Your task to perform on an android device: turn pop-ups on in chrome Image 0: 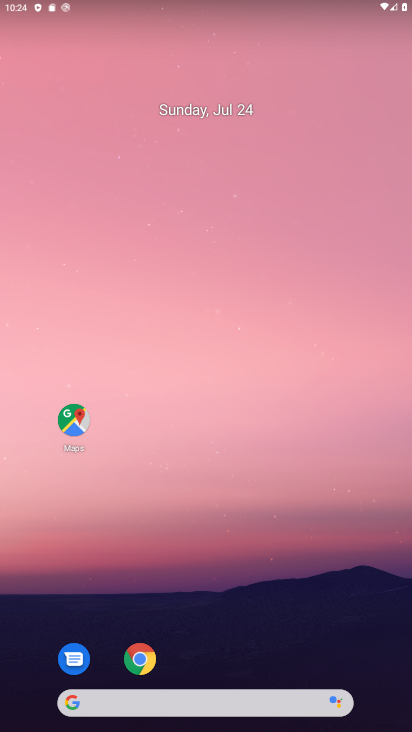
Step 0: drag from (190, 372) to (173, 45)
Your task to perform on an android device: turn pop-ups on in chrome Image 1: 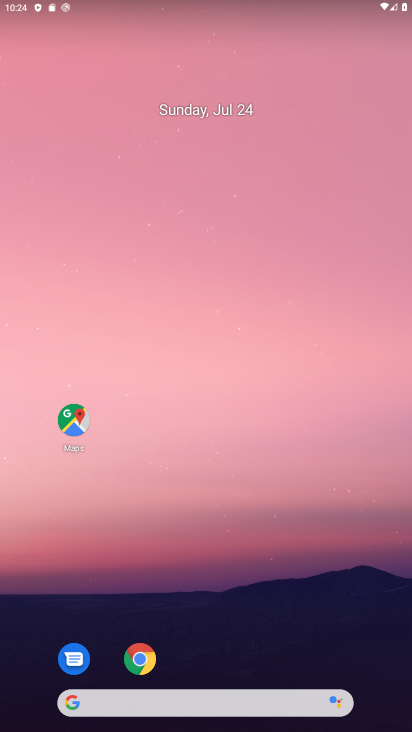
Step 1: drag from (289, 660) to (252, 13)
Your task to perform on an android device: turn pop-ups on in chrome Image 2: 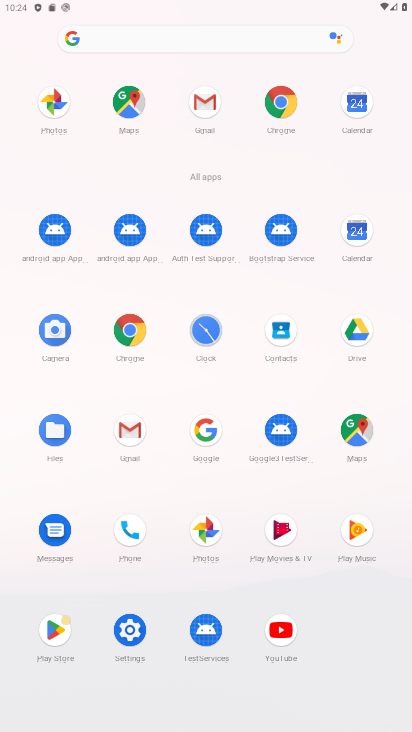
Step 2: click (277, 110)
Your task to perform on an android device: turn pop-ups on in chrome Image 3: 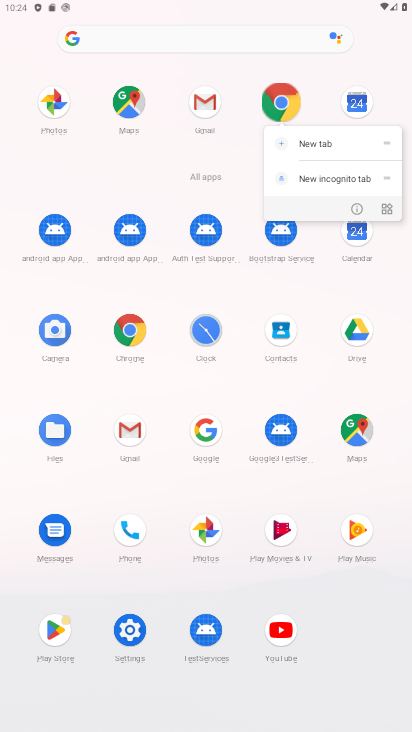
Step 3: click (277, 109)
Your task to perform on an android device: turn pop-ups on in chrome Image 4: 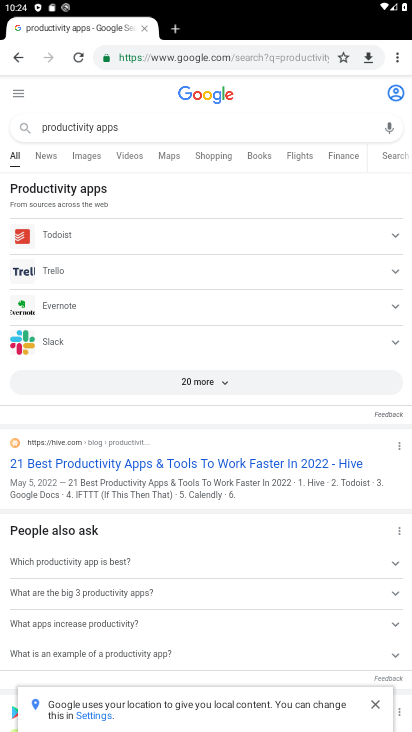
Step 4: drag from (394, 60) to (270, 350)
Your task to perform on an android device: turn pop-ups on in chrome Image 5: 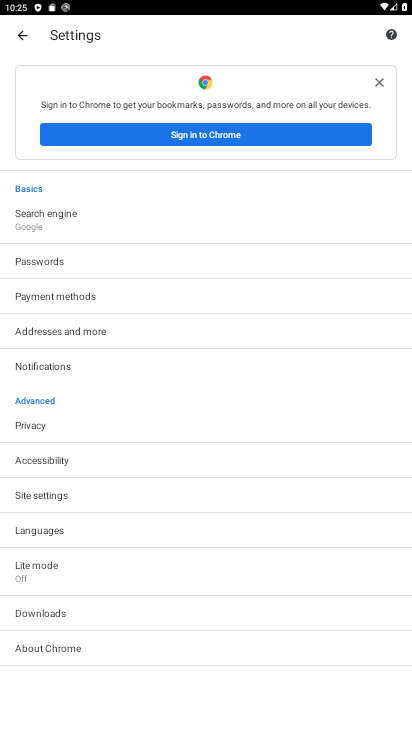
Step 5: click (96, 490)
Your task to perform on an android device: turn pop-ups on in chrome Image 6: 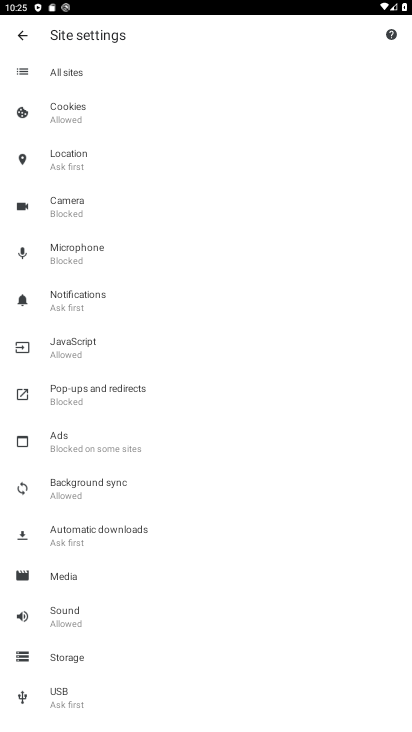
Step 6: click (75, 407)
Your task to perform on an android device: turn pop-ups on in chrome Image 7: 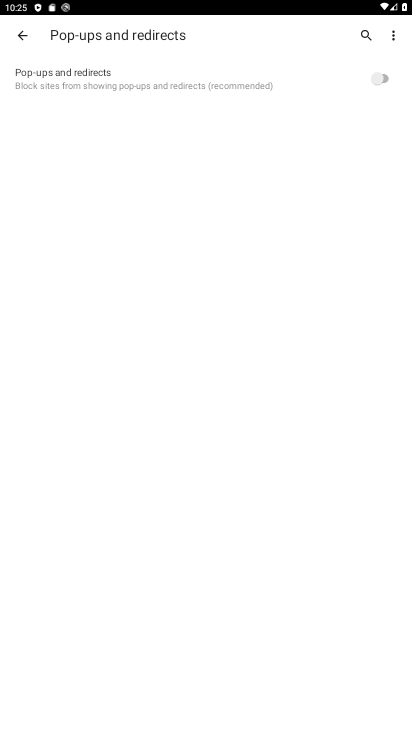
Step 7: click (382, 80)
Your task to perform on an android device: turn pop-ups on in chrome Image 8: 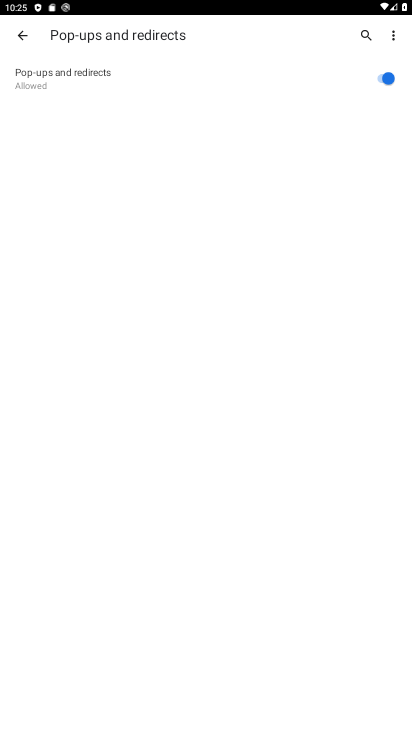
Step 8: task complete